Your task to perform on an android device: Add "usb-c" to the cart on newegg, then select checkout. Image 0: 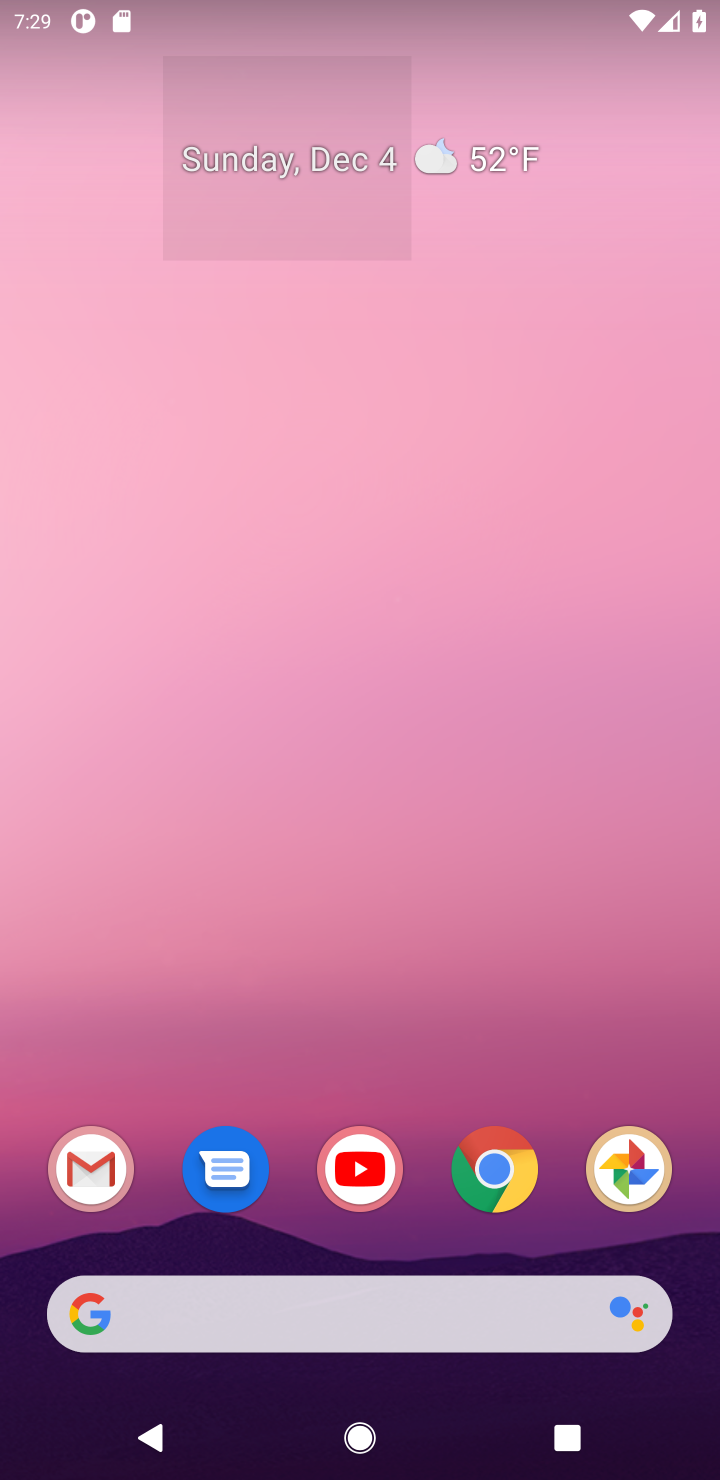
Step 0: click (505, 1166)
Your task to perform on an android device: Add "usb-c" to the cart on newegg, then select checkout. Image 1: 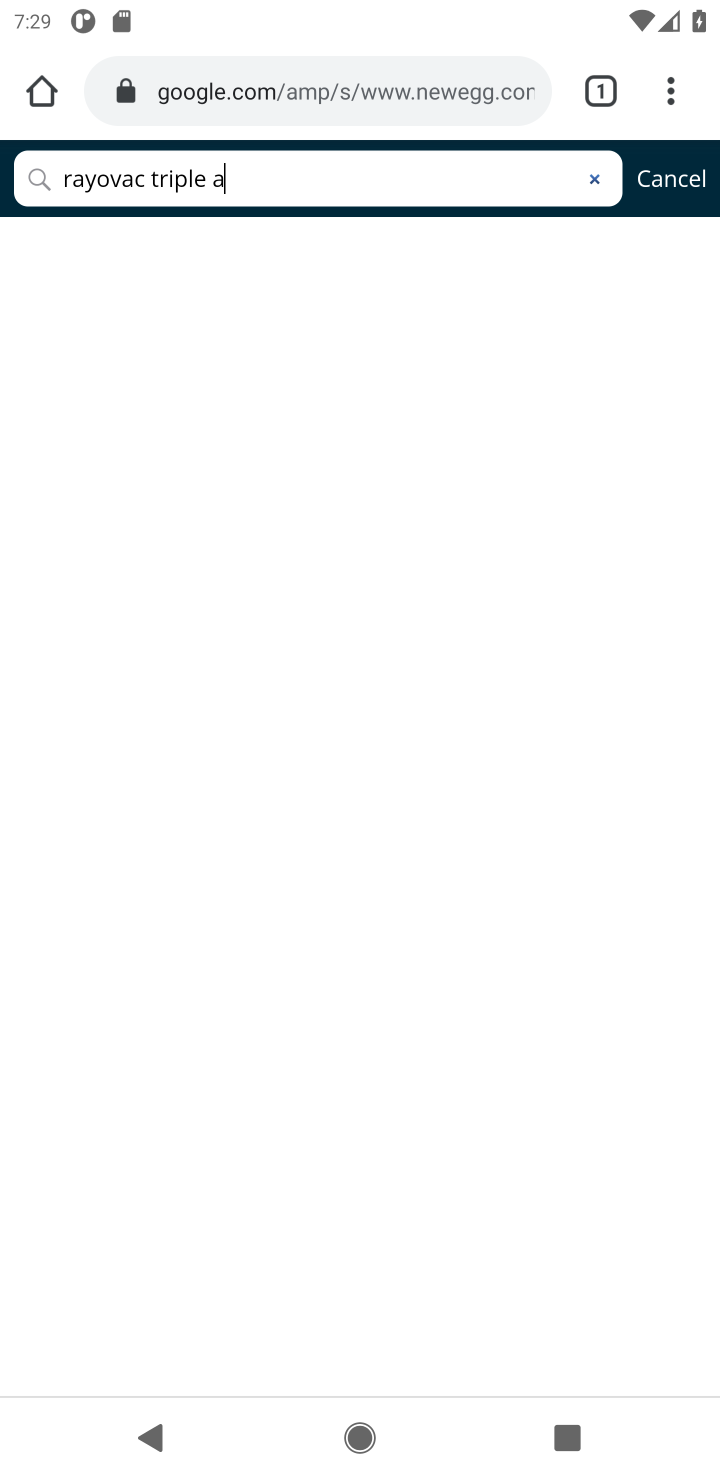
Step 1: click (592, 181)
Your task to perform on an android device: Add "usb-c" to the cart on newegg, then select checkout. Image 2: 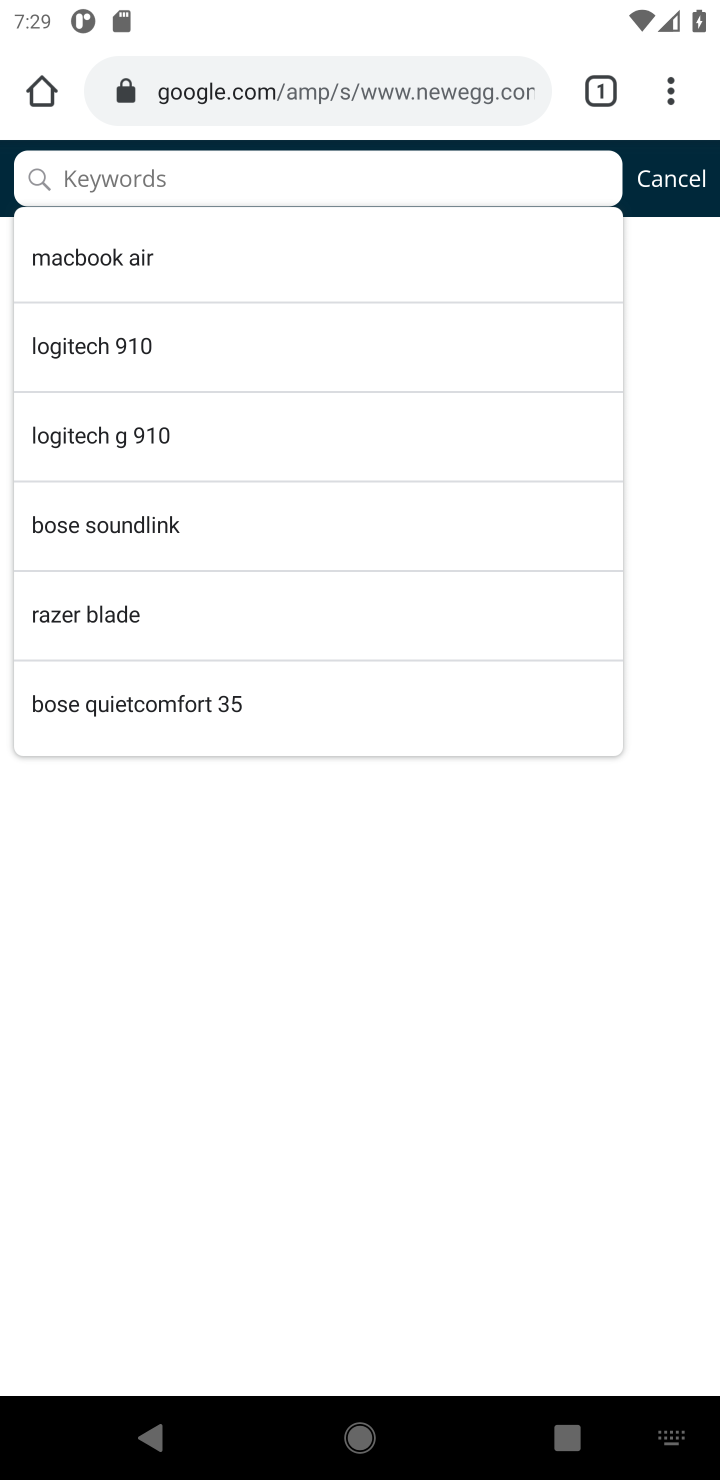
Step 2: type "usb-c"
Your task to perform on an android device: Add "usb-c" to the cart on newegg, then select checkout. Image 3: 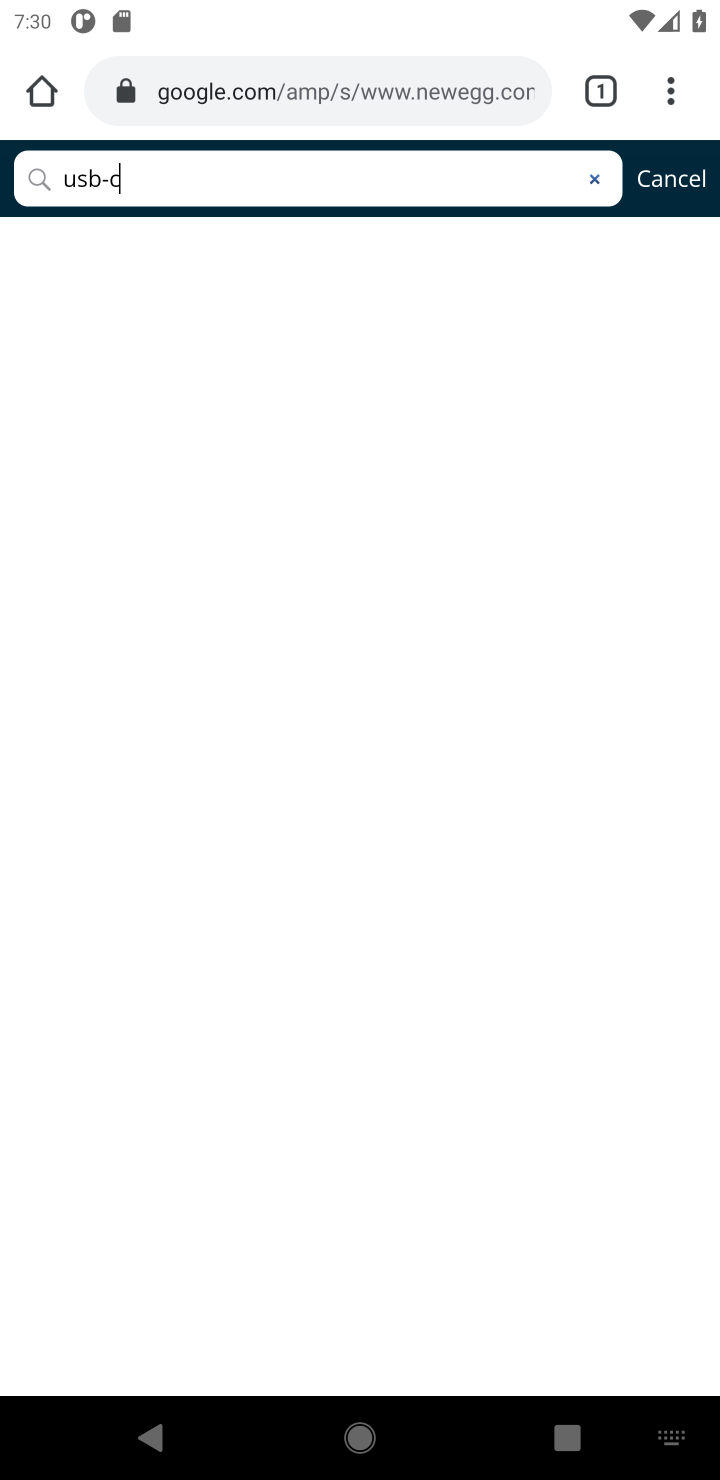
Step 3: task complete